Your task to perform on an android device: turn on translation in the chrome app Image 0: 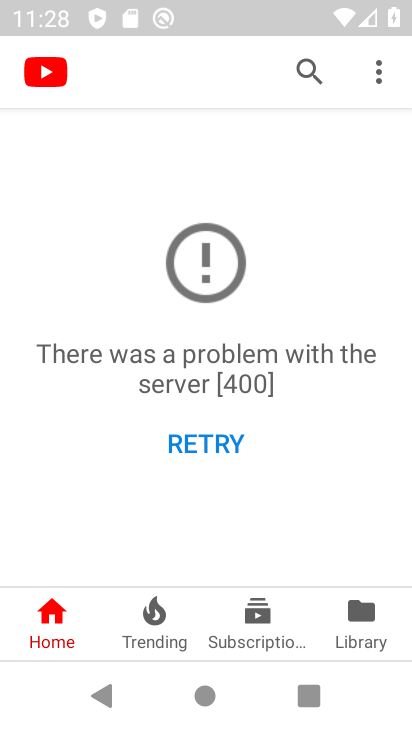
Step 0: press home button
Your task to perform on an android device: turn on translation in the chrome app Image 1: 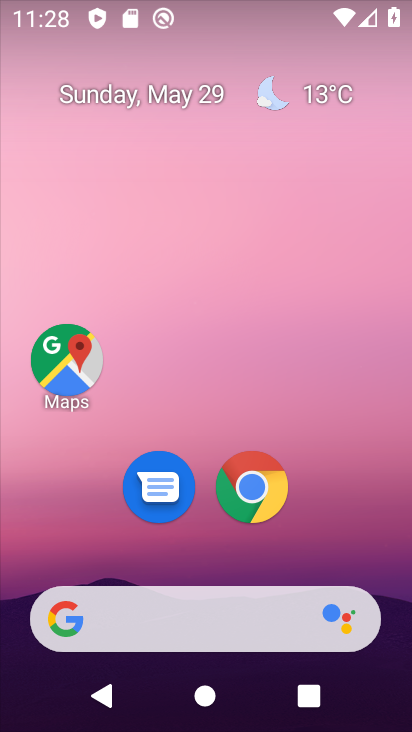
Step 1: click (261, 490)
Your task to perform on an android device: turn on translation in the chrome app Image 2: 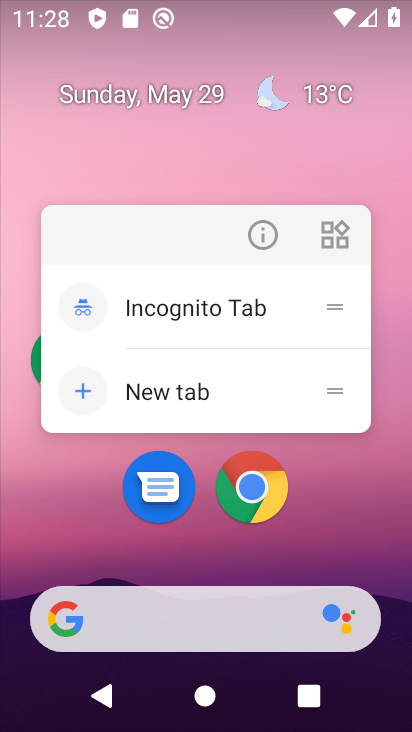
Step 2: click (261, 490)
Your task to perform on an android device: turn on translation in the chrome app Image 3: 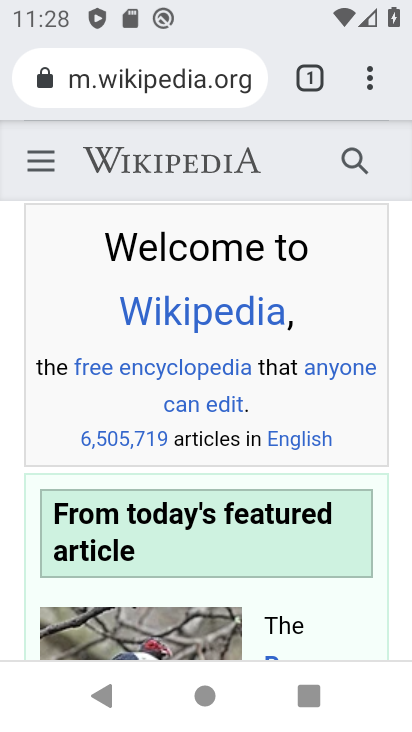
Step 3: click (374, 77)
Your task to perform on an android device: turn on translation in the chrome app Image 4: 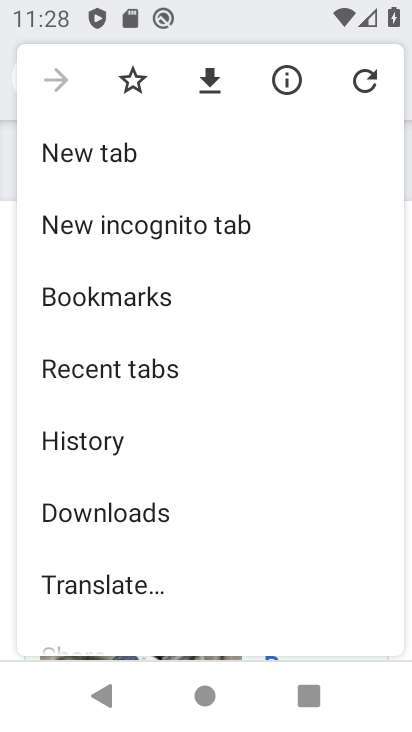
Step 4: drag from (264, 464) to (254, 214)
Your task to perform on an android device: turn on translation in the chrome app Image 5: 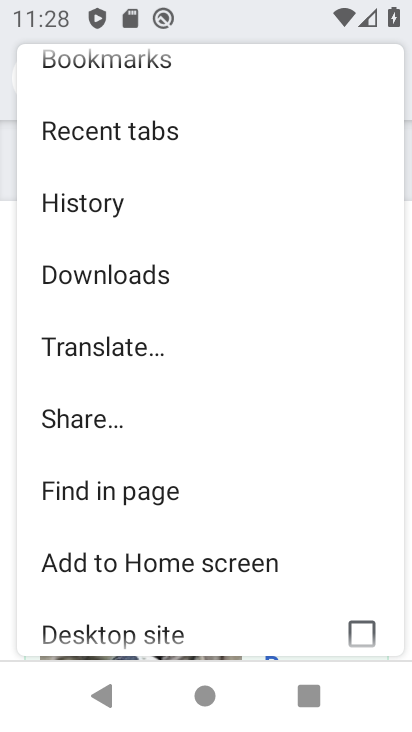
Step 5: drag from (281, 501) to (263, 264)
Your task to perform on an android device: turn on translation in the chrome app Image 6: 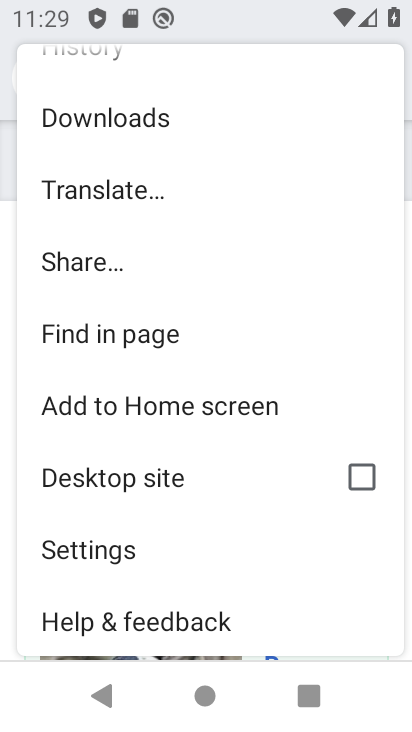
Step 6: click (146, 543)
Your task to perform on an android device: turn on translation in the chrome app Image 7: 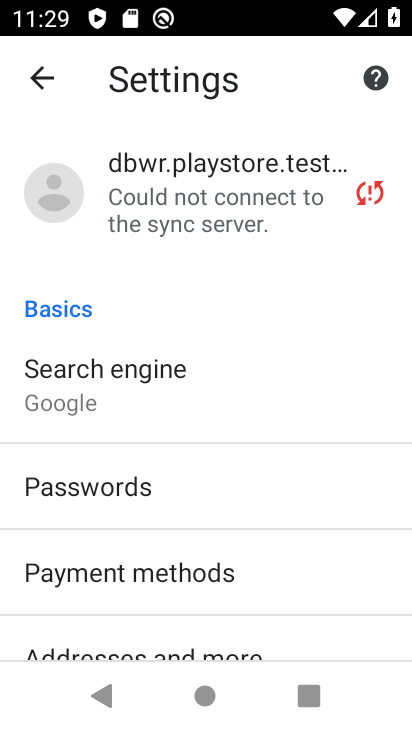
Step 7: drag from (227, 547) to (267, 292)
Your task to perform on an android device: turn on translation in the chrome app Image 8: 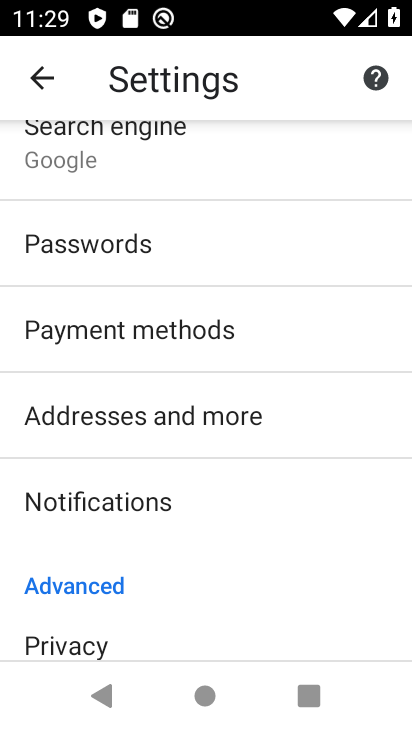
Step 8: drag from (244, 597) to (252, 341)
Your task to perform on an android device: turn on translation in the chrome app Image 9: 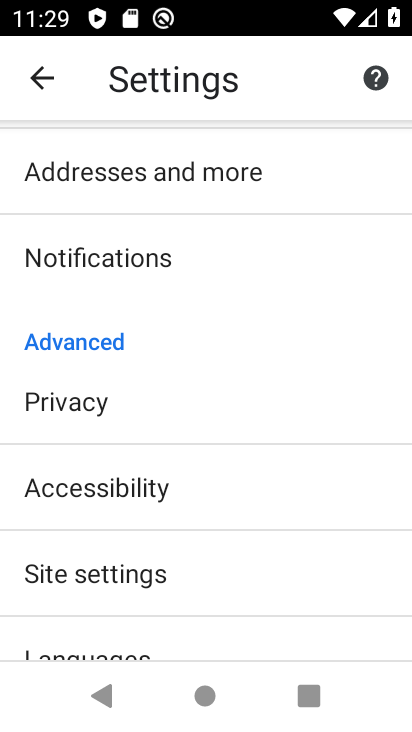
Step 9: drag from (216, 588) to (216, 437)
Your task to perform on an android device: turn on translation in the chrome app Image 10: 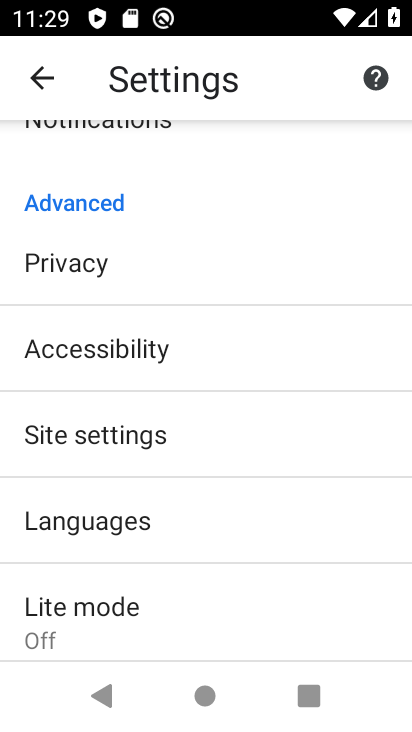
Step 10: click (182, 524)
Your task to perform on an android device: turn on translation in the chrome app Image 11: 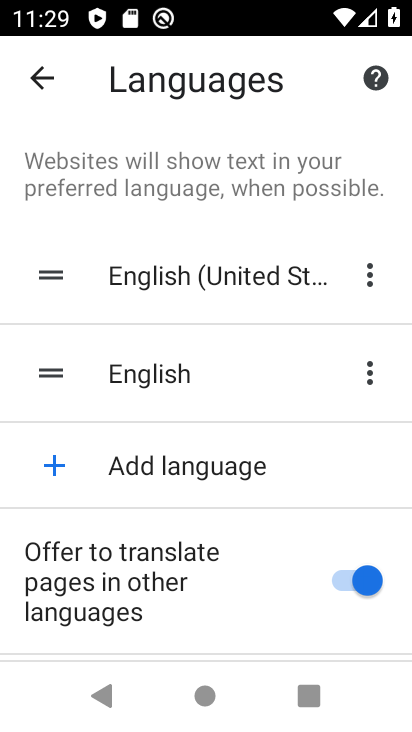
Step 11: task complete